Your task to perform on an android device: toggle location history Image 0: 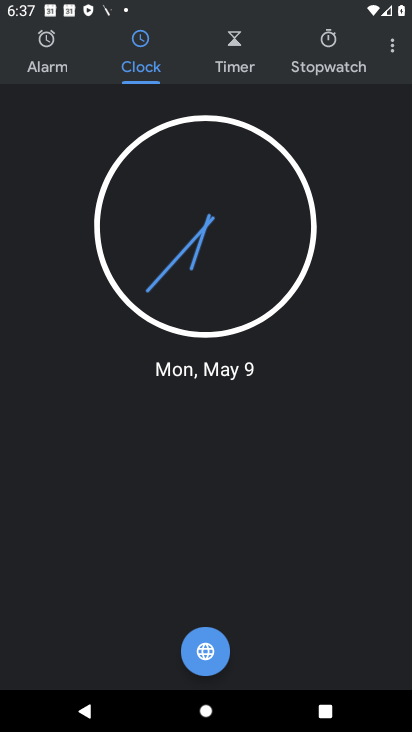
Step 0: press home button
Your task to perform on an android device: toggle location history Image 1: 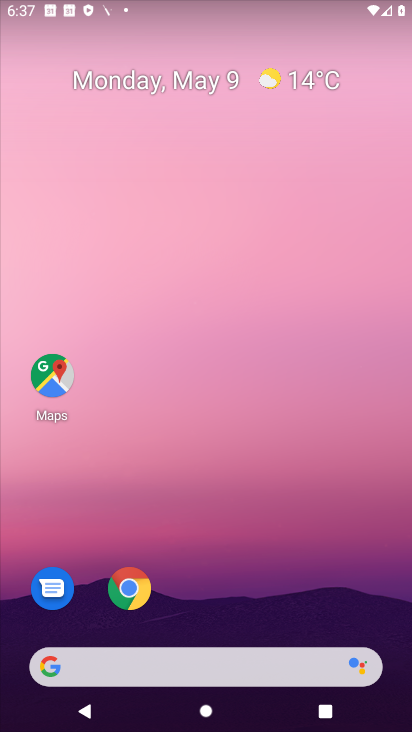
Step 1: drag from (278, 611) to (277, 45)
Your task to perform on an android device: toggle location history Image 2: 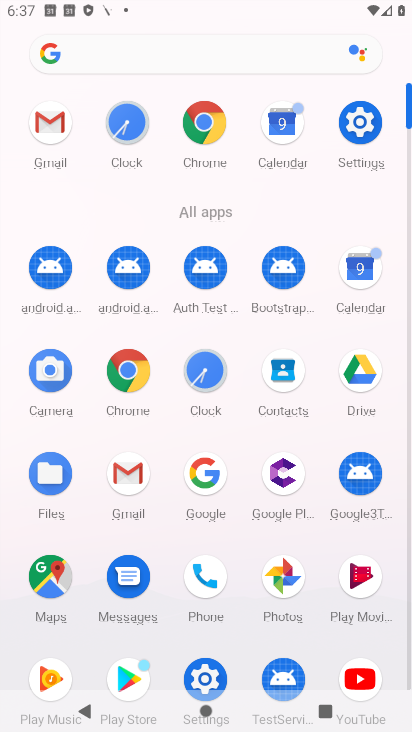
Step 2: click (207, 660)
Your task to perform on an android device: toggle location history Image 3: 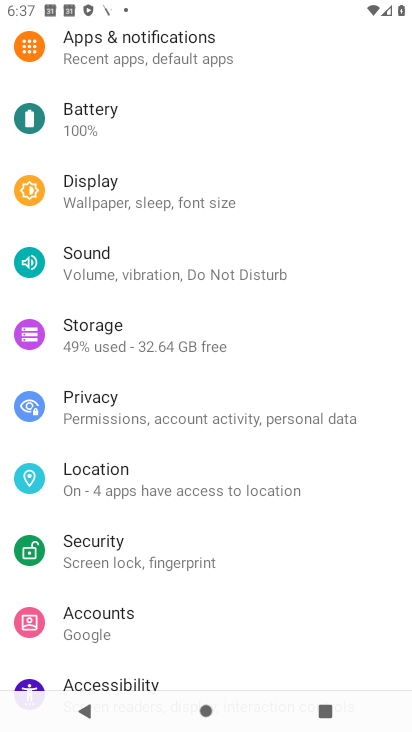
Step 3: click (123, 481)
Your task to perform on an android device: toggle location history Image 4: 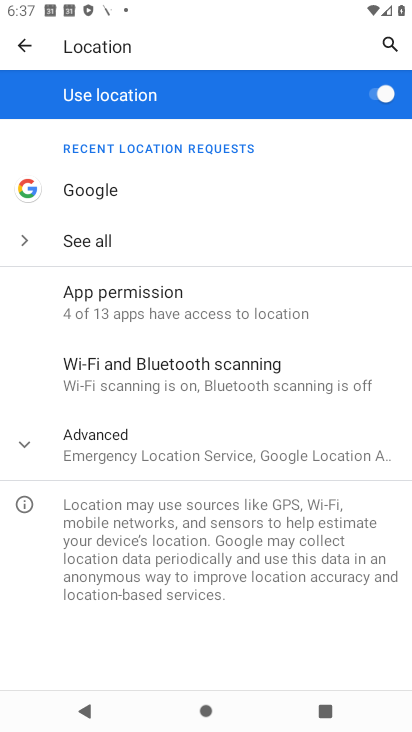
Step 4: click (21, 443)
Your task to perform on an android device: toggle location history Image 5: 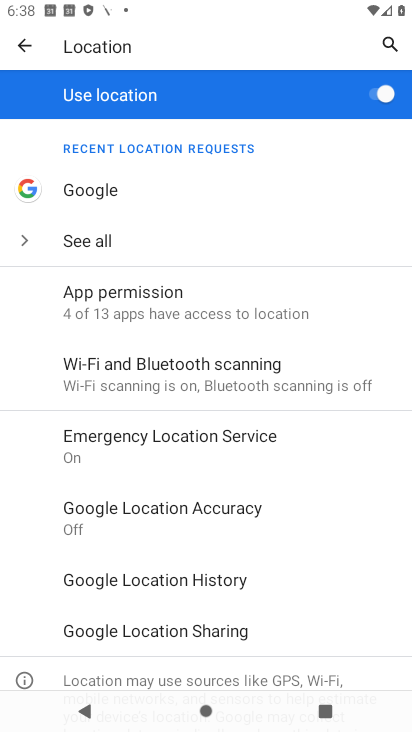
Step 5: click (228, 572)
Your task to perform on an android device: toggle location history Image 6: 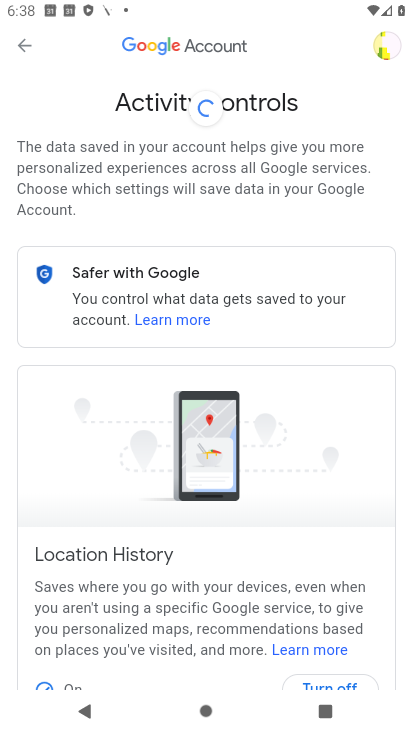
Step 6: drag from (258, 603) to (260, 221)
Your task to perform on an android device: toggle location history Image 7: 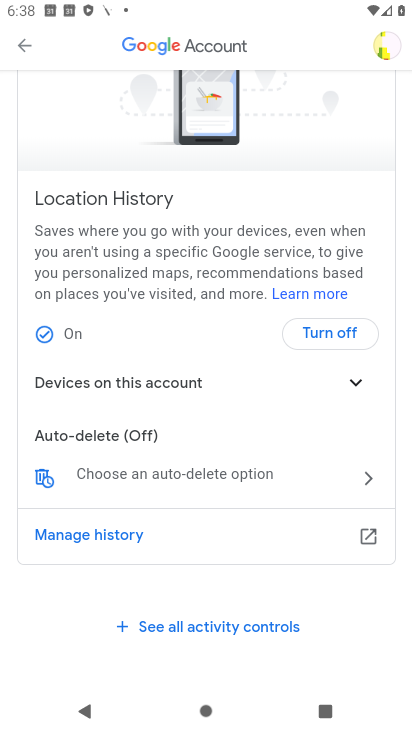
Step 7: click (353, 320)
Your task to perform on an android device: toggle location history Image 8: 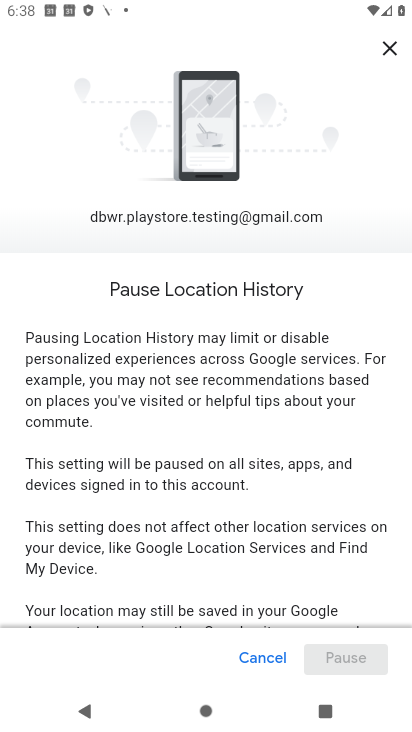
Step 8: task complete